Your task to perform on an android device: Show me popular games on the Play Store Image 0: 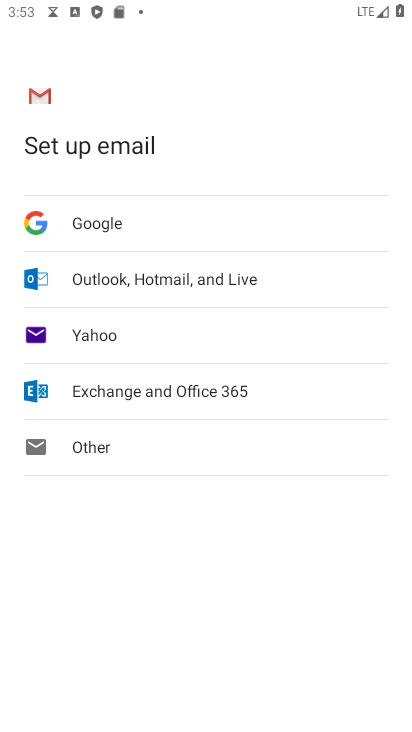
Step 0: press home button
Your task to perform on an android device: Show me popular games on the Play Store Image 1: 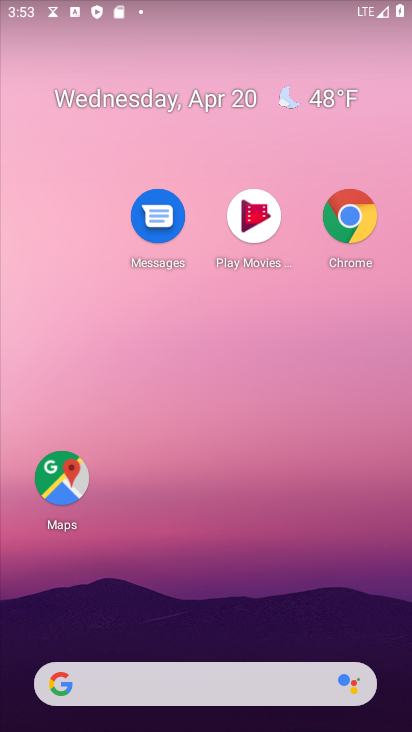
Step 1: drag from (270, 574) to (308, 159)
Your task to perform on an android device: Show me popular games on the Play Store Image 2: 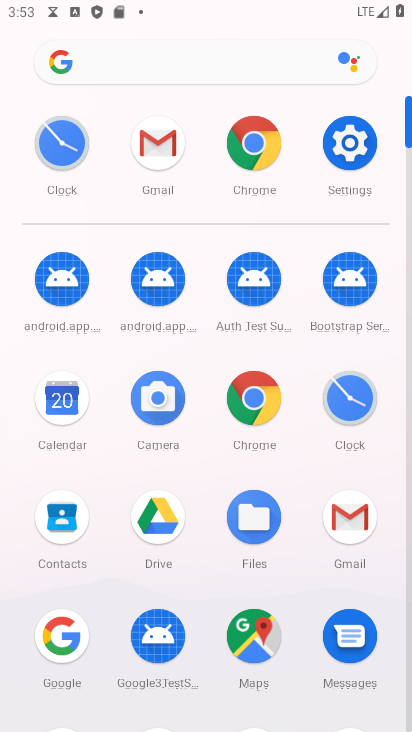
Step 2: drag from (208, 613) to (217, 214)
Your task to perform on an android device: Show me popular games on the Play Store Image 3: 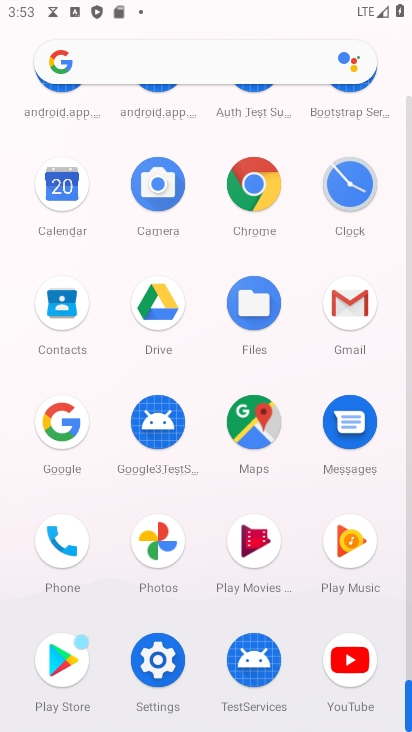
Step 3: click (63, 675)
Your task to perform on an android device: Show me popular games on the Play Store Image 4: 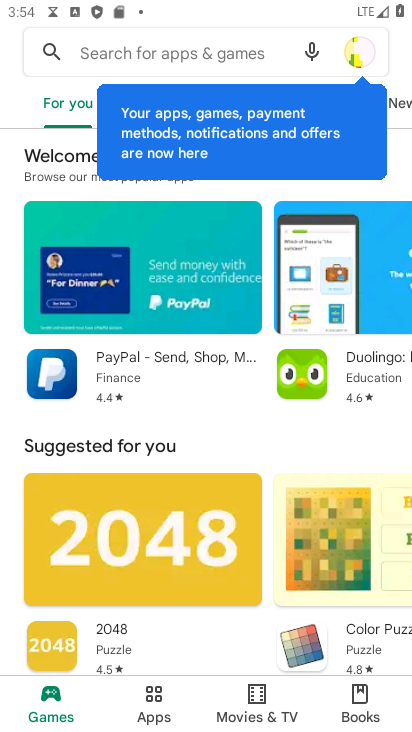
Step 4: click (38, 708)
Your task to perform on an android device: Show me popular games on the Play Store Image 5: 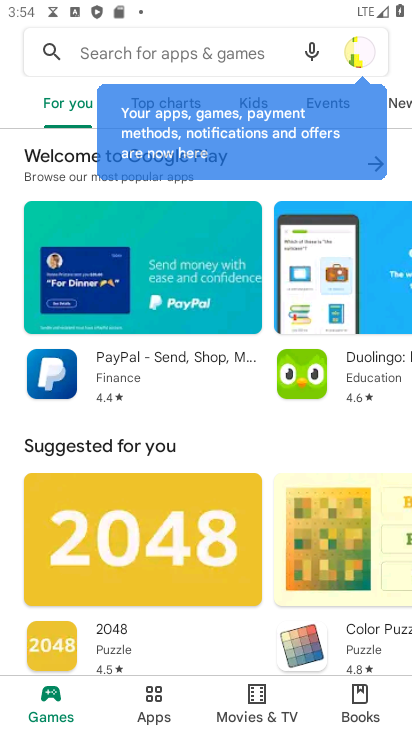
Step 5: task complete